Your task to perform on an android device: Turn off the flashlight Image 0: 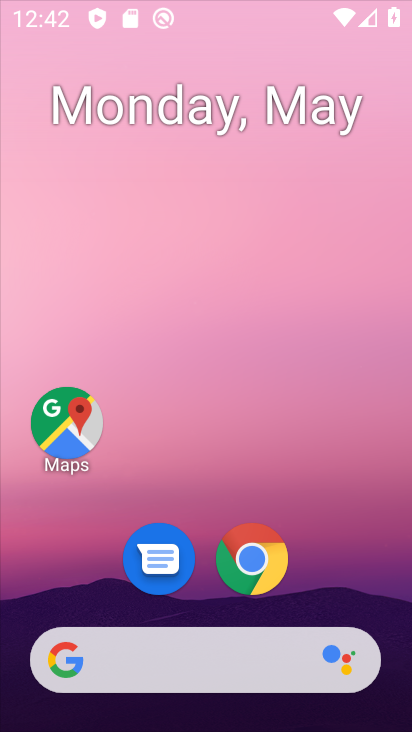
Step 0: click (307, 209)
Your task to perform on an android device: Turn off the flashlight Image 1: 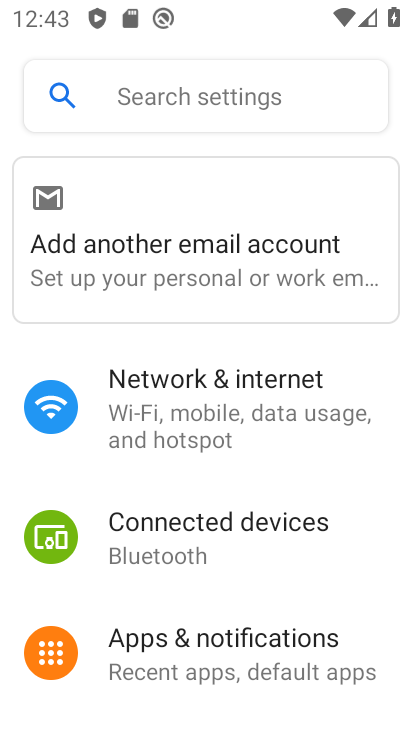
Step 1: drag from (212, 650) to (301, 346)
Your task to perform on an android device: Turn off the flashlight Image 2: 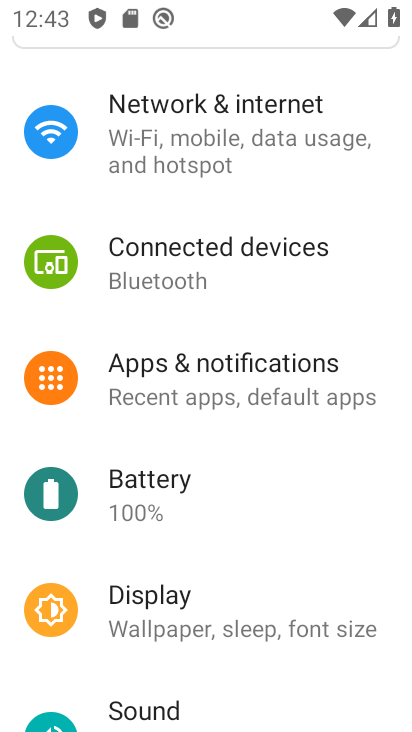
Step 2: drag from (262, 261) to (355, 675)
Your task to perform on an android device: Turn off the flashlight Image 3: 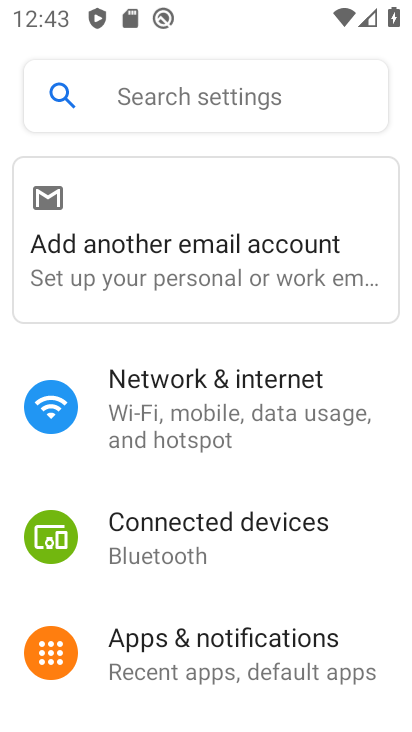
Step 3: click (178, 82)
Your task to perform on an android device: Turn off the flashlight Image 4: 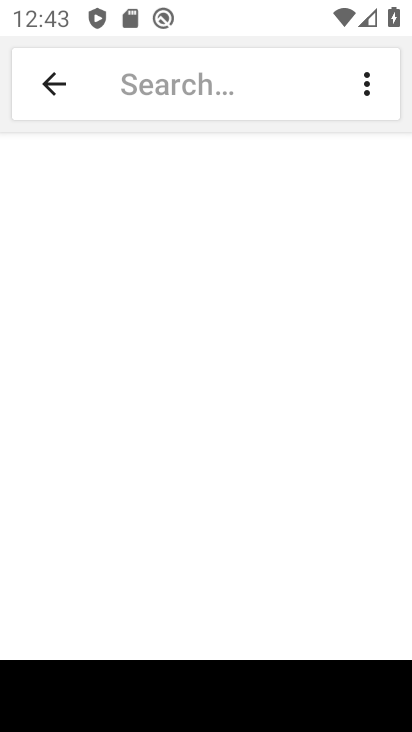
Step 4: type "flashlight"
Your task to perform on an android device: Turn off the flashlight Image 5: 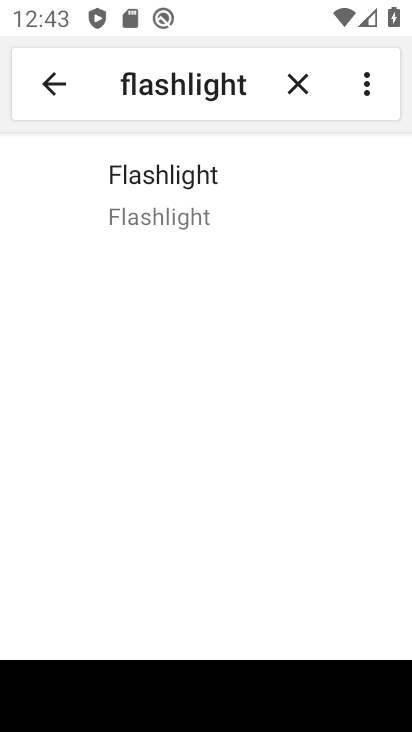
Step 5: click (265, 182)
Your task to perform on an android device: Turn off the flashlight Image 6: 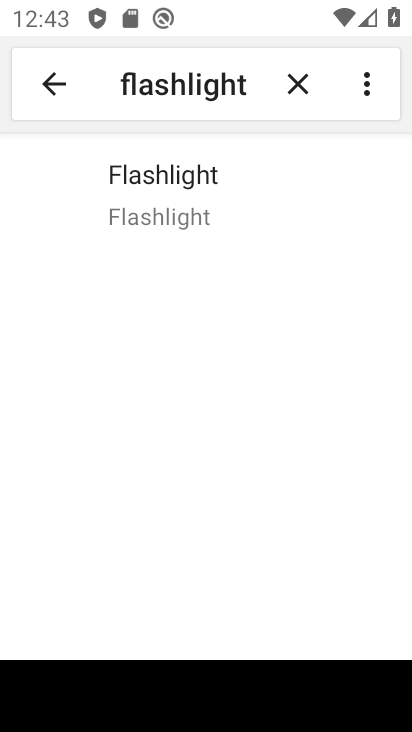
Step 6: task complete